Your task to perform on an android device: Show me the alarms in the clock app Image 0: 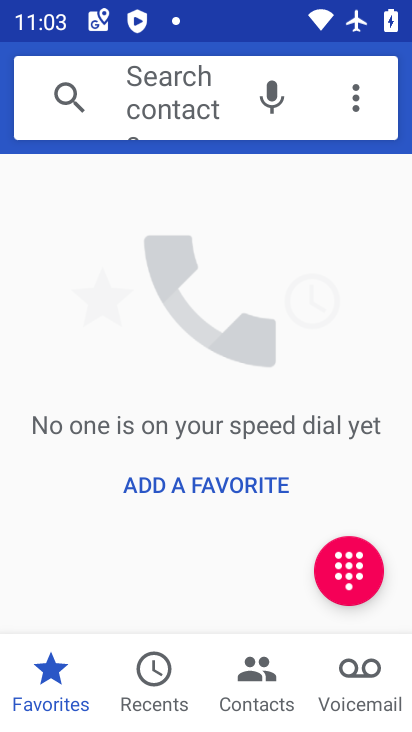
Step 0: press home button
Your task to perform on an android device: Show me the alarms in the clock app Image 1: 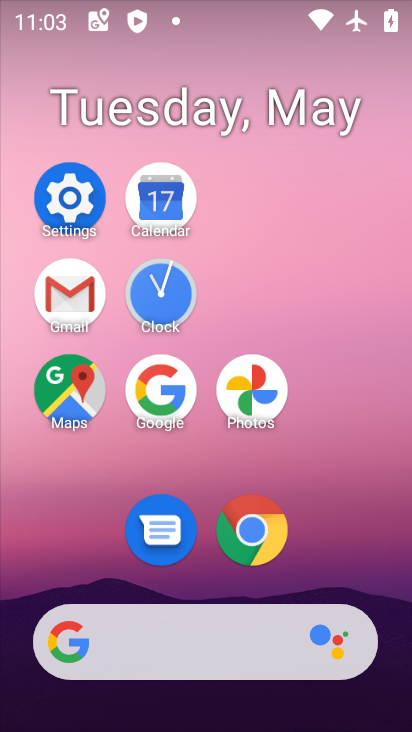
Step 1: click (154, 320)
Your task to perform on an android device: Show me the alarms in the clock app Image 2: 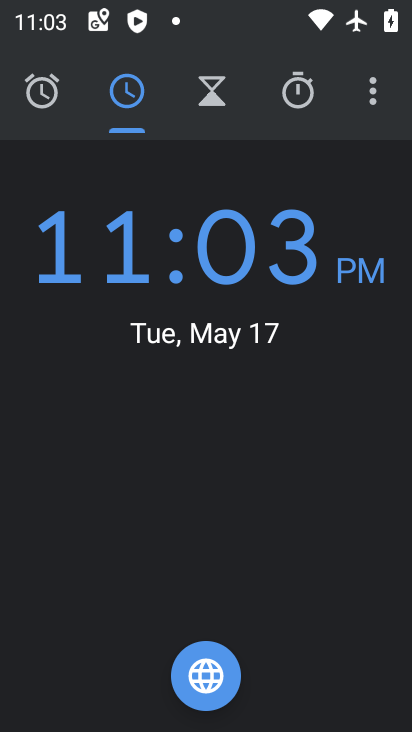
Step 2: click (56, 92)
Your task to perform on an android device: Show me the alarms in the clock app Image 3: 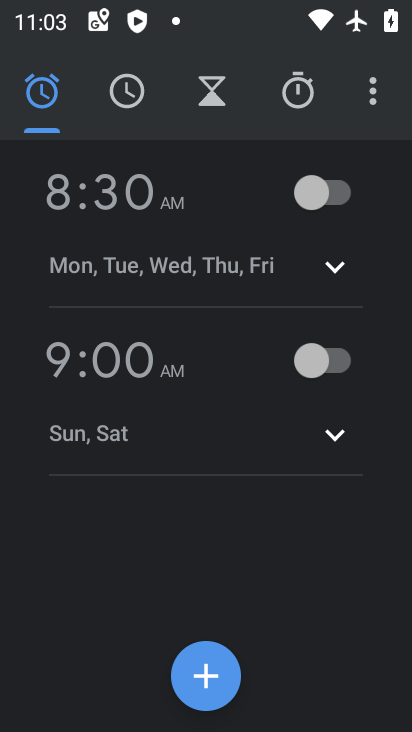
Step 3: task complete